Your task to perform on an android device: open app "Adobe Express: Graphic Design" (install if not already installed) and enter user name: "deliveries@gmail.com" and password: "regimentation" Image 0: 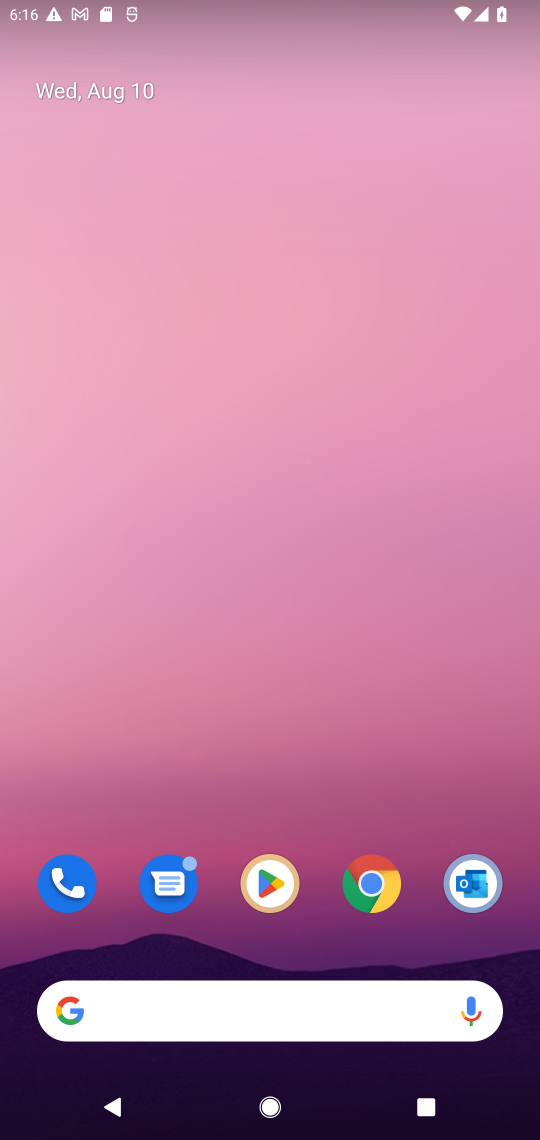
Step 0: click (253, 877)
Your task to perform on an android device: open app "Adobe Express: Graphic Design" (install if not already installed) and enter user name: "deliveries@gmail.com" and password: "regimentation" Image 1: 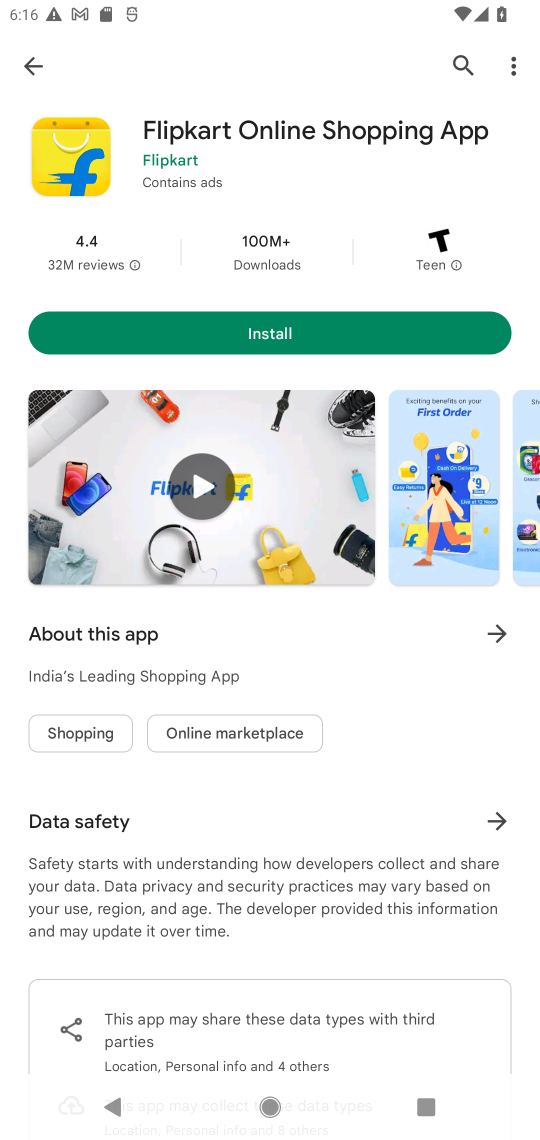
Step 1: click (459, 63)
Your task to perform on an android device: open app "Adobe Express: Graphic Design" (install if not already installed) and enter user name: "deliveries@gmail.com" and password: "regimentation" Image 2: 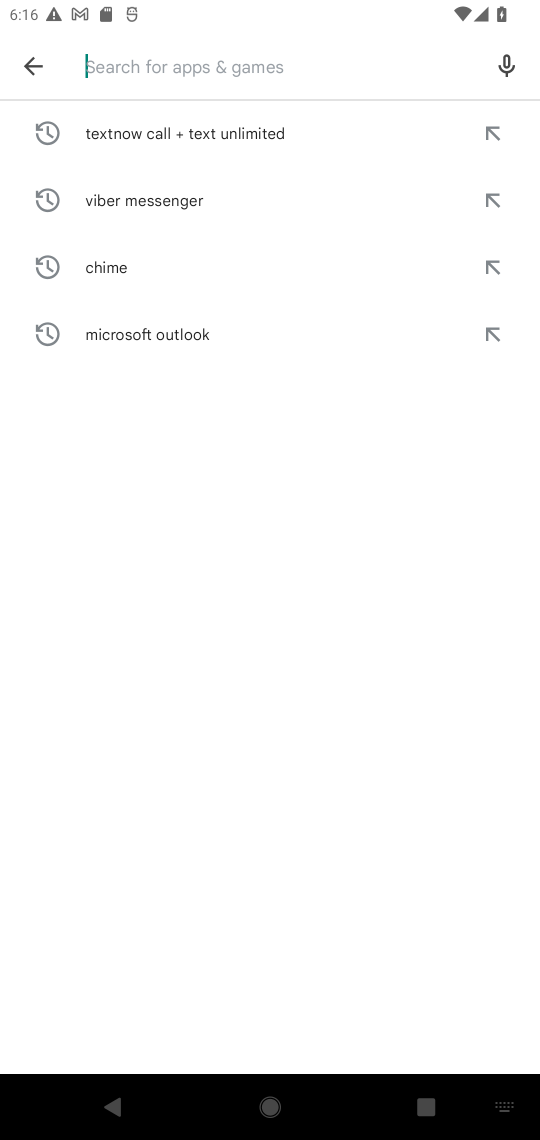
Step 2: type "Adobe Express: Graphic Design"
Your task to perform on an android device: open app "Adobe Express: Graphic Design" (install if not already installed) and enter user name: "deliveries@gmail.com" and password: "regimentation" Image 3: 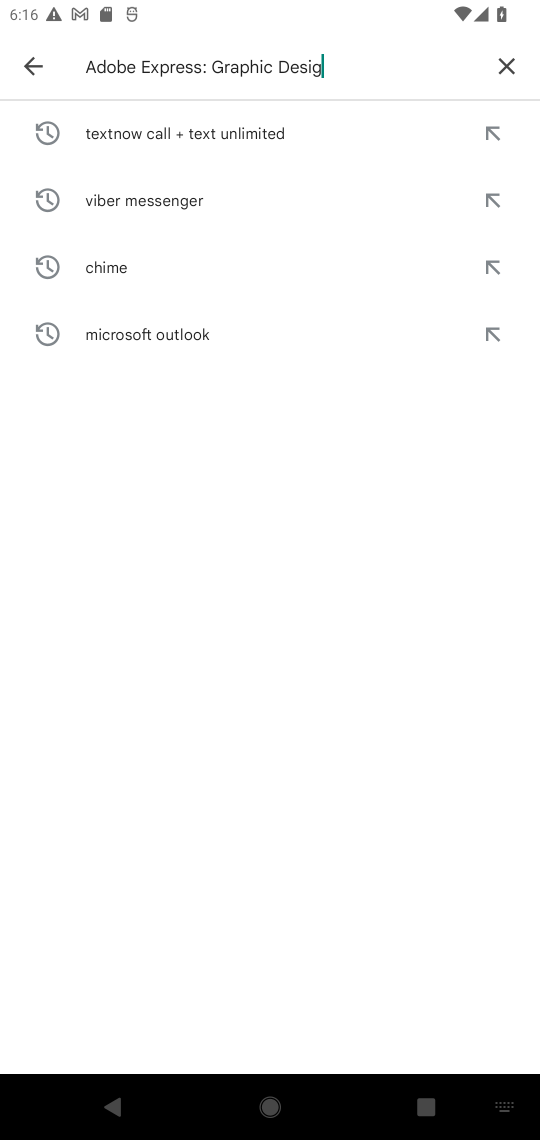
Step 3: type ""
Your task to perform on an android device: open app "Adobe Express: Graphic Design" (install if not already installed) and enter user name: "deliveries@gmail.com" and password: "regimentation" Image 4: 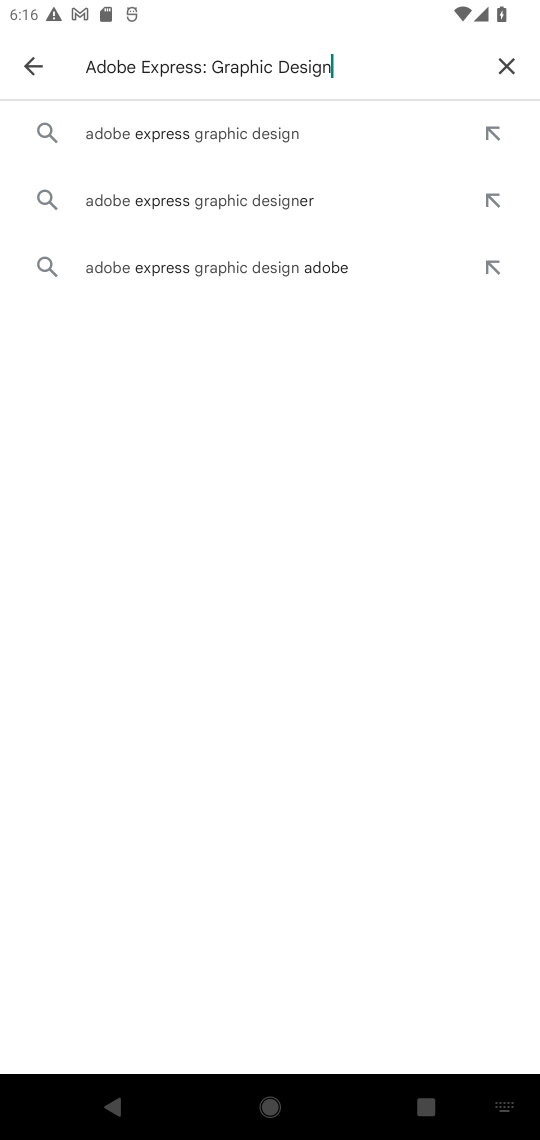
Step 4: click (311, 128)
Your task to perform on an android device: open app "Adobe Express: Graphic Design" (install if not already installed) and enter user name: "deliveries@gmail.com" and password: "regimentation" Image 5: 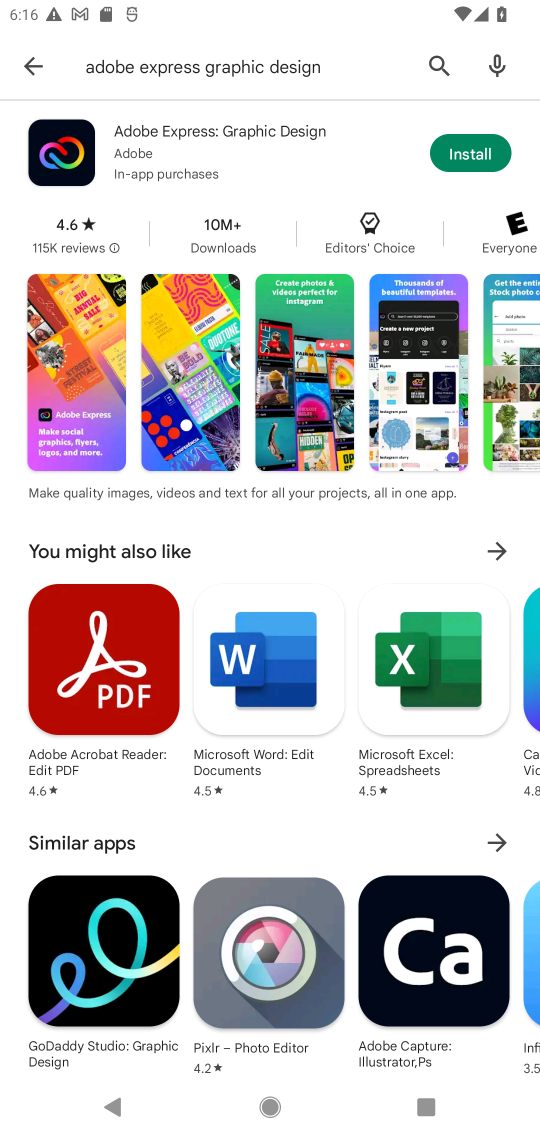
Step 5: click (486, 156)
Your task to perform on an android device: open app "Adobe Express: Graphic Design" (install if not already installed) and enter user name: "deliveries@gmail.com" and password: "regimentation" Image 6: 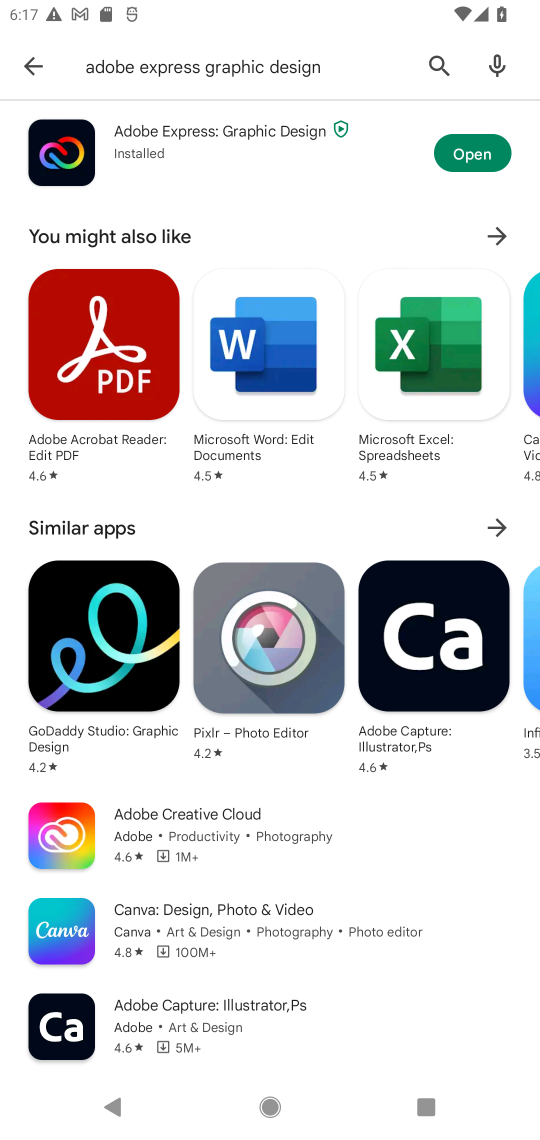
Step 6: click (484, 156)
Your task to perform on an android device: open app "Adobe Express: Graphic Design" (install if not already installed) and enter user name: "deliveries@gmail.com" and password: "regimentation" Image 7: 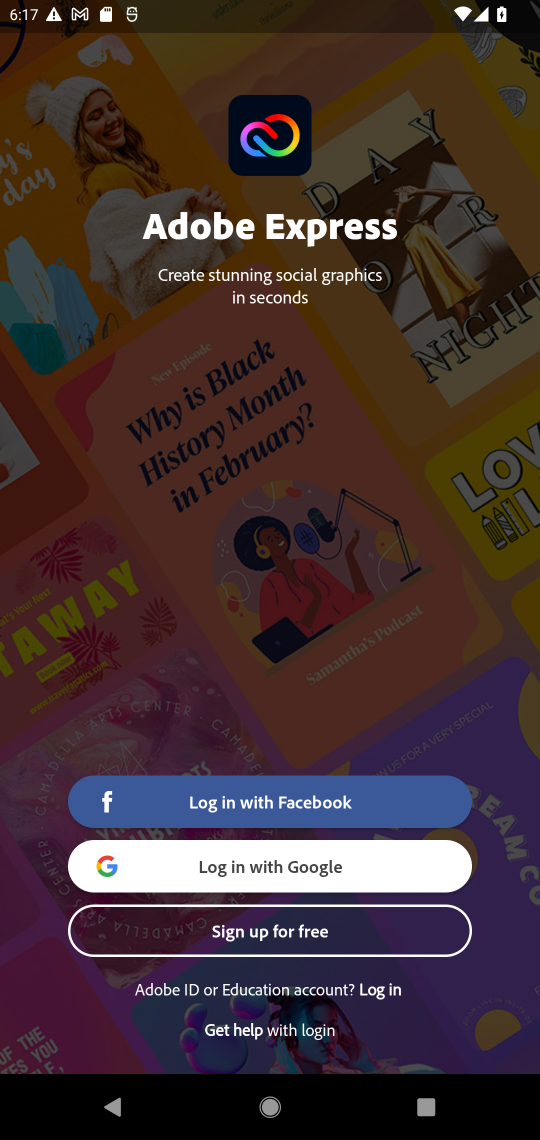
Step 7: task complete